Your task to perform on an android device: change notifications settings Image 0: 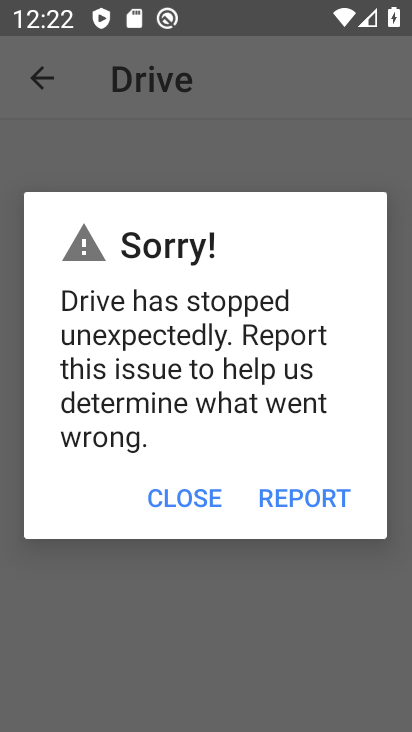
Step 0: press home button
Your task to perform on an android device: change notifications settings Image 1: 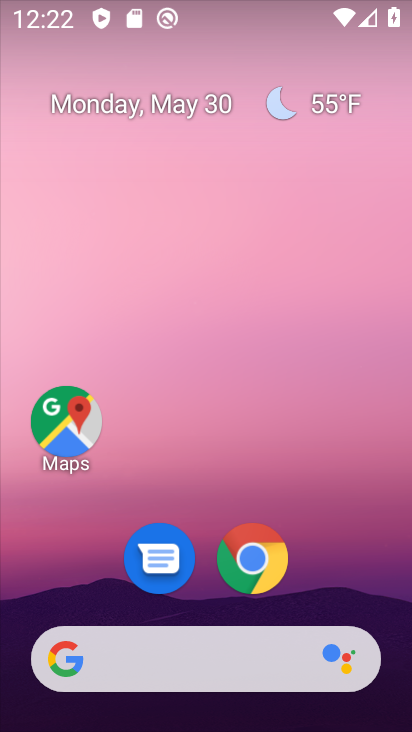
Step 1: drag from (335, 422) to (58, 2)
Your task to perform on an android device: change notifications settings Image 2: 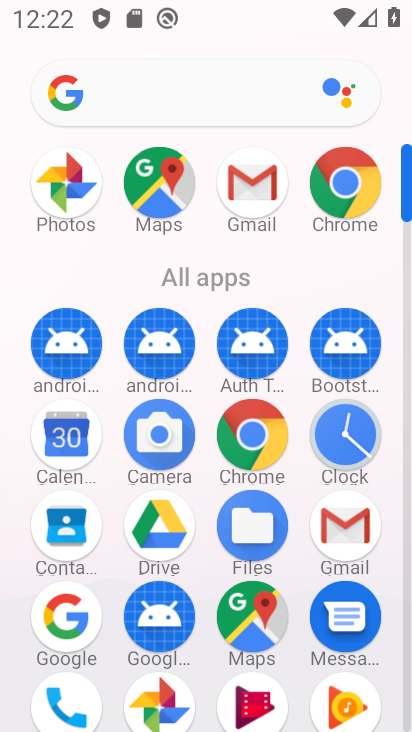
Step 2: drag from (376, 455) to (326, 149)
Your task to perform on an android device: change notifications settings Image 3: 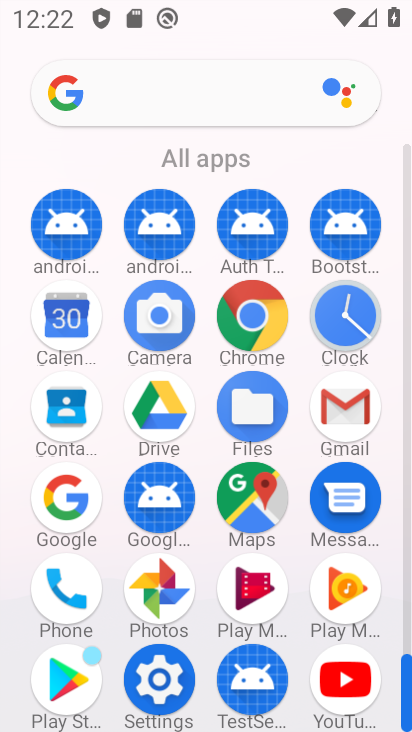
Step 3: click (165, 688)
Your task to perform on an android device: change notifications settings Image 4: 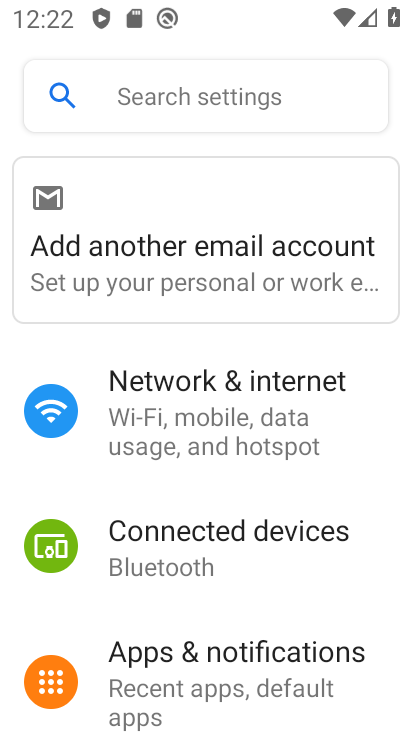
Step 4: drag from (268, 646) to (318, 328)
Your task to perform on an android device: change notifications settings Image 5: 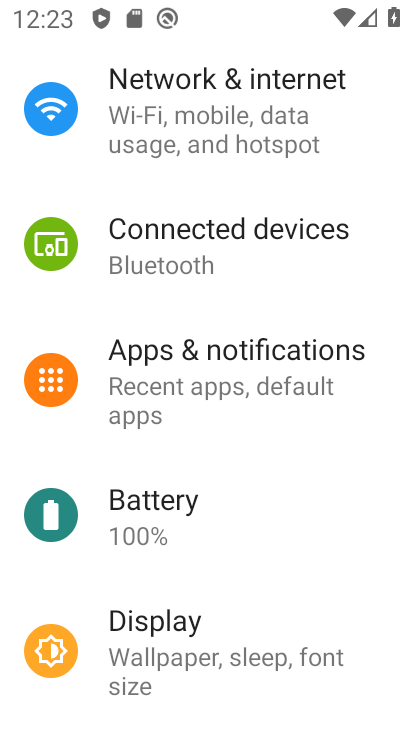
Step 5: click (292, 362)
Your task to perform on an android device: change notifications settings Image 6: 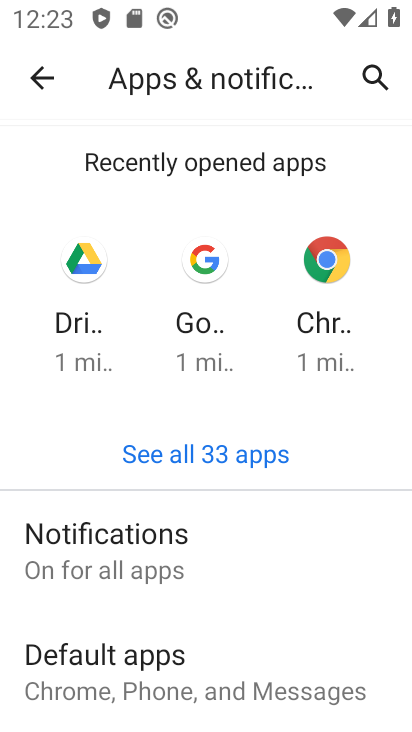
Step 6: click (117, 585)
Your task to perform on an android device: change notifications settings Image 7: 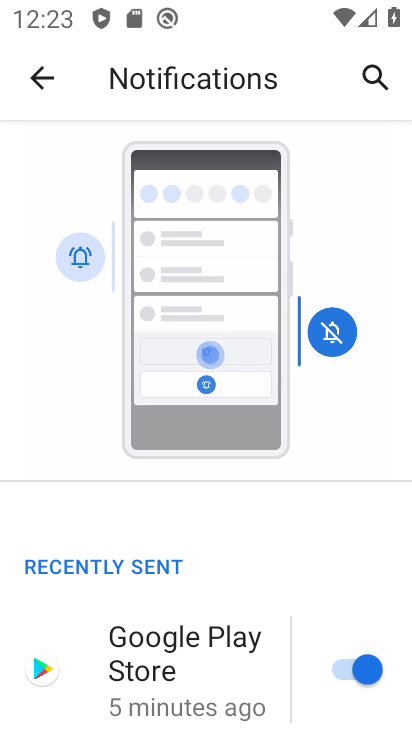
Step 7: drag from (164, 594) to (158, 212)
Your task to perform on an android device: change notifications settings Image 8: 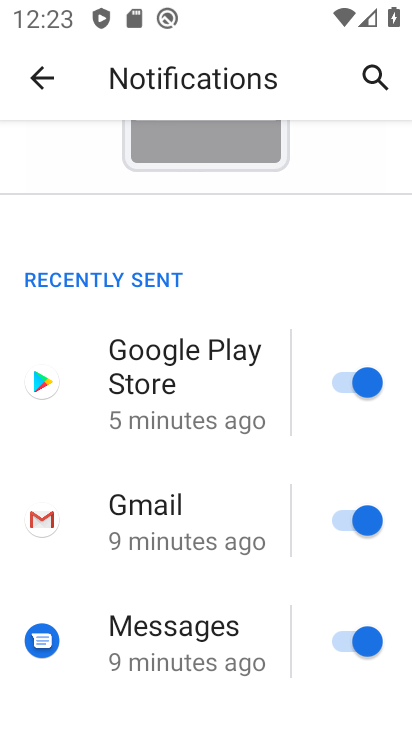
Step 8: drag from (151, 577) to (154, 156)
Your task to perform on an android device: change notifications settings Image 9: 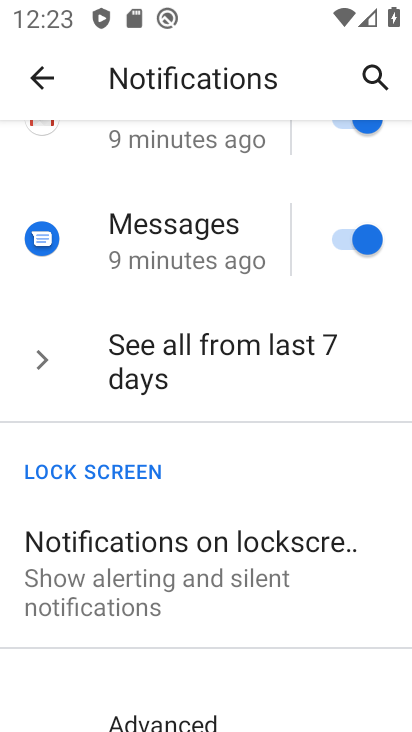
Step 9: drag from (198, 595) to (281, 166)
Your task to perform on an android device: change notifications settings Image 10: 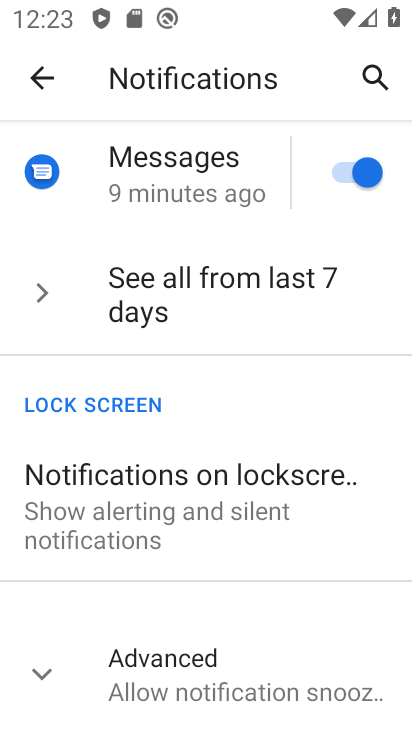
Step 10: click (118, 673)
Your task to perform on an android device: change notifications settings Image 11: 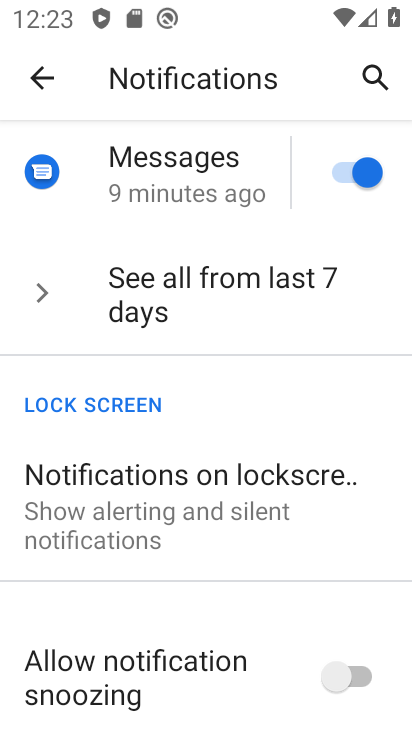
Step 11: drag from (147, 637) to (219, 148)
Your task to perform on an android device: change notifications settings Image 12: 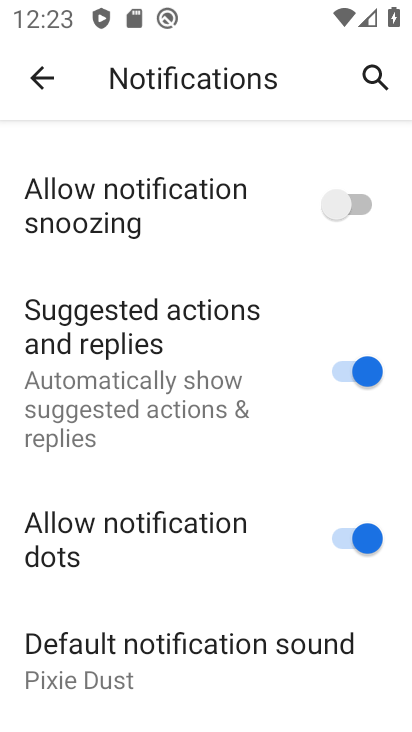
Step 12: drag from (261, 578) to (322, 121)
Your task to perform on an android device: change notifications settings Image 13: 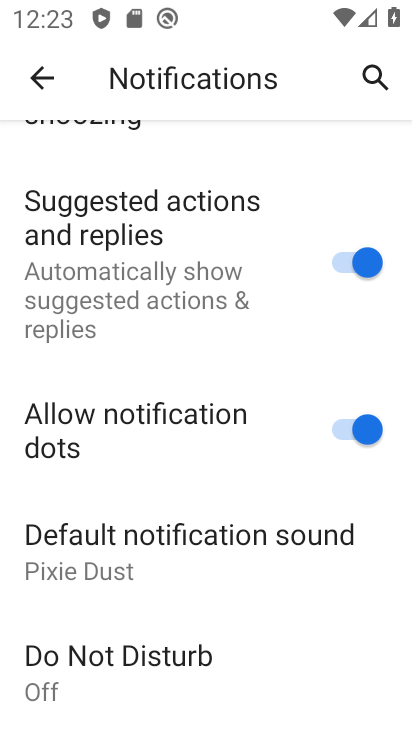
Step 13: drag from (262, 400) to (298, 721)
Your task to perform on an android device: change notifications settings Image 14: 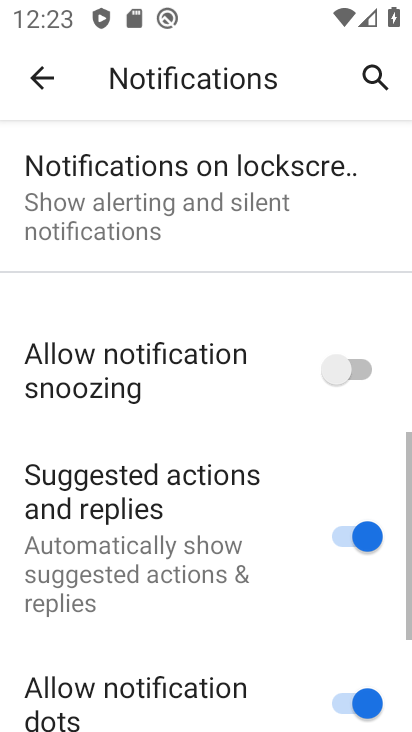
Step 14: drag from (248, 395) to (235, 724)
Your task to perform on an android device: change notifications settings Image 15: 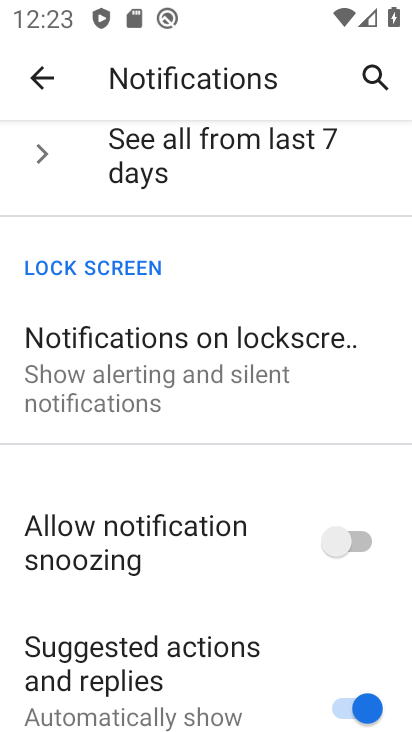
Step 15: drag from (229, 293) to (254, 621)
Your task to perform on an android device: change notifications settings Image 16: 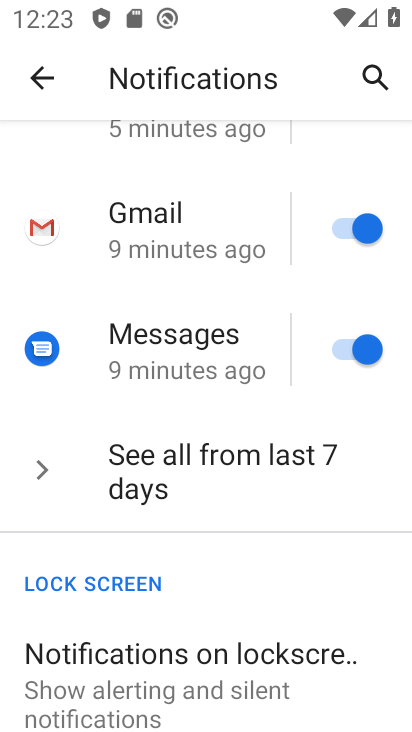
Step 16: drag from (238, 220) to (286, 613)
Your task to perform on an android device: change notifications settings Image 17: 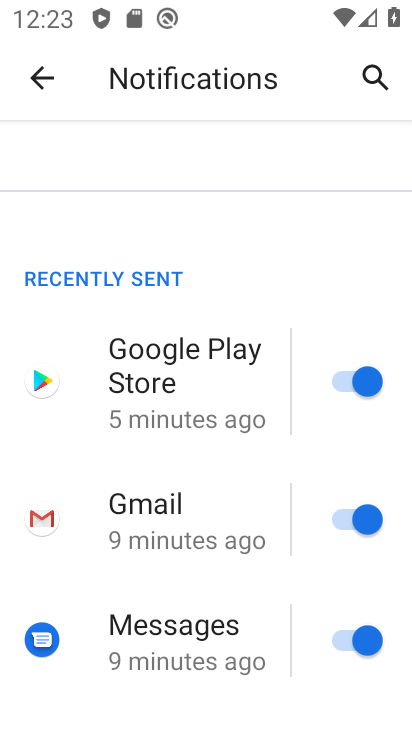
Step 17: drag from (186, 200) to (231, 639)
Your task to perform on an android device: change notifications settings Image 18: 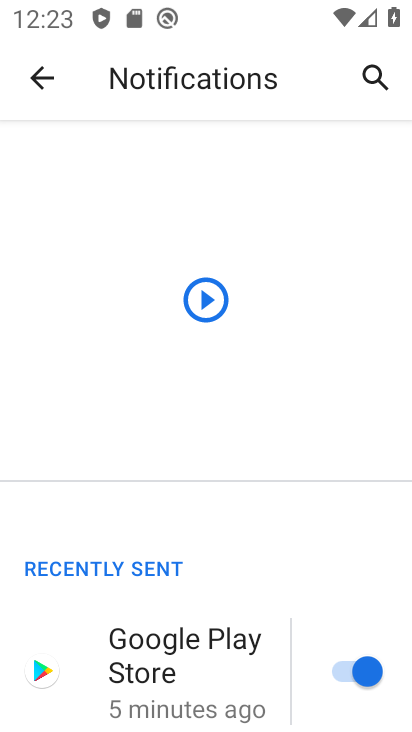
Step 18: drag from (173, 199) to (228, 620)
Your task to perform on an android device: change notifications settings Image 19: 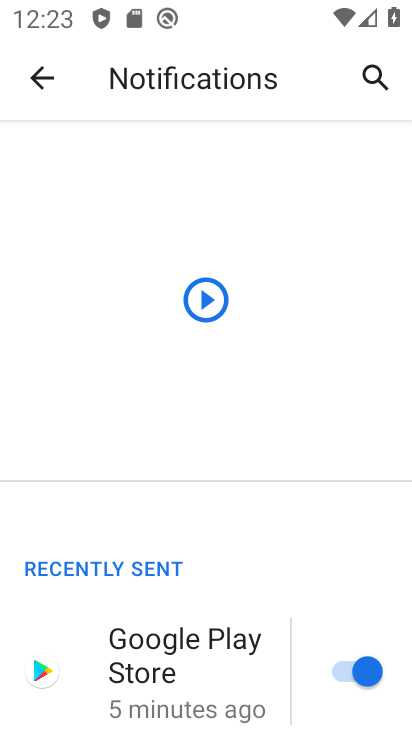
Step 19: click (346, 669)
Your task to perform on an android device: change notifications settings Image 20: 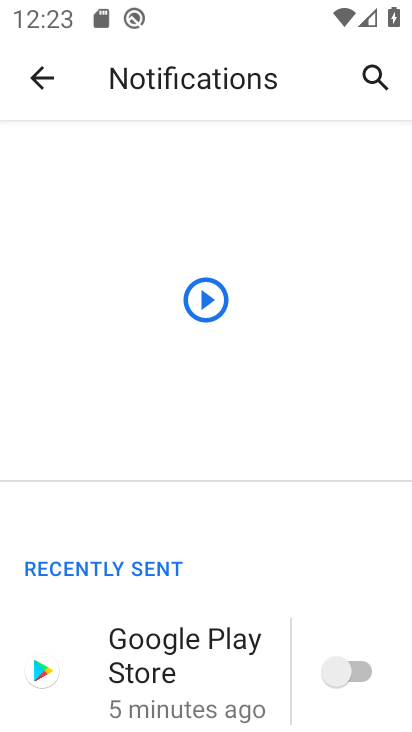
Step 20: task complete